Your task to perform on an android device: turn notification dots on Image 0: 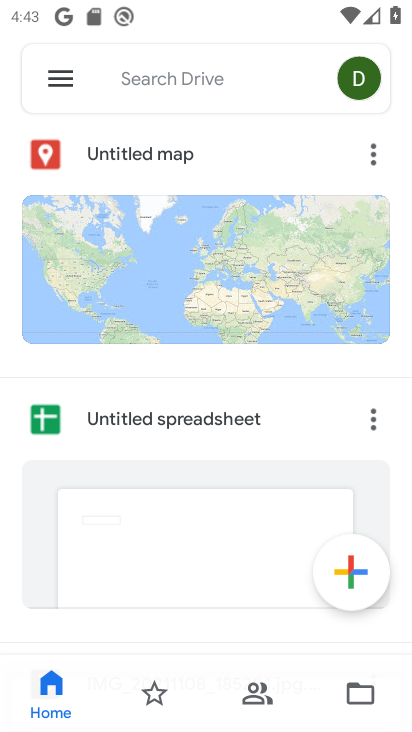
Step 0: press home button
Your task to perform on an android device: turn notification dots on Image 1: 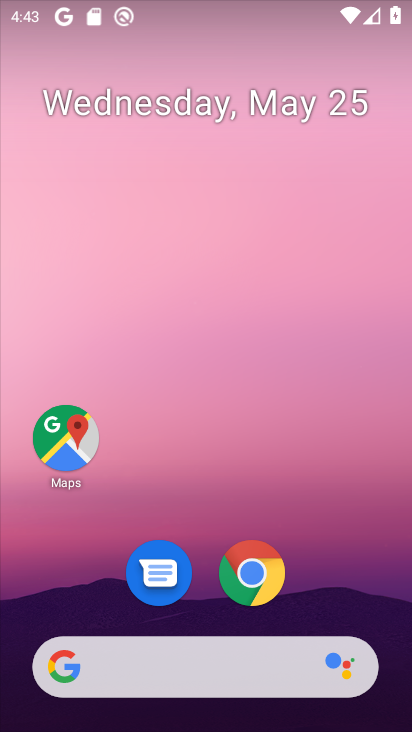
Step 1: drag from (232, 707) to (226, 265)
Your task to perform on an android device: turn notification dots on Image 2: 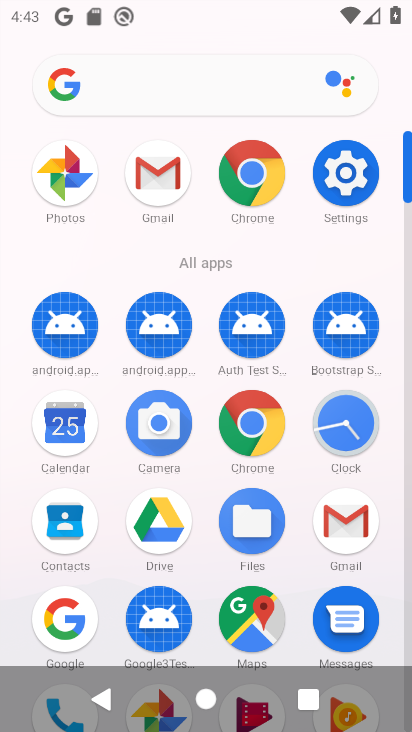
Step 2: click (344, 167)
Your task to perform on an android device: turn notification dots on Image 3: 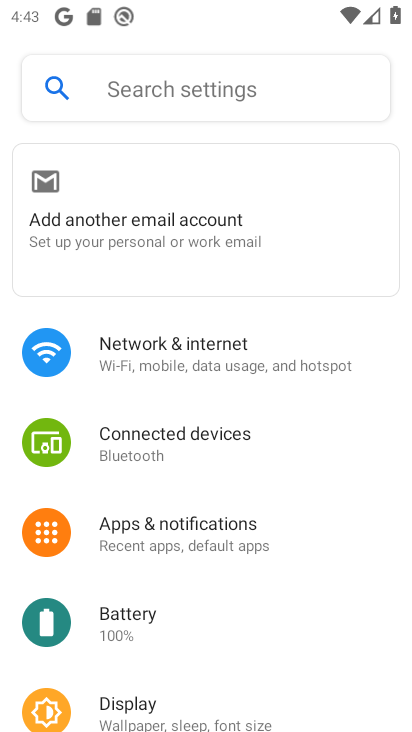
Step 3: click (182, 527)
Your task to perform on an android device: turn notification dots on Image 4: 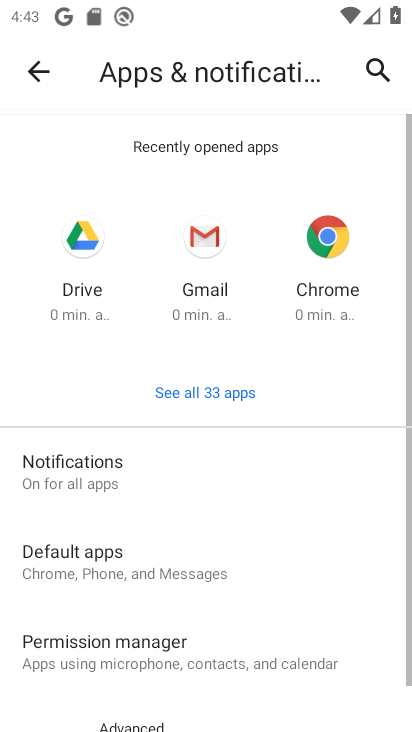
Step 4: click (73, 478)
Your task to perform on an android device: turn notification dots on Image 5: 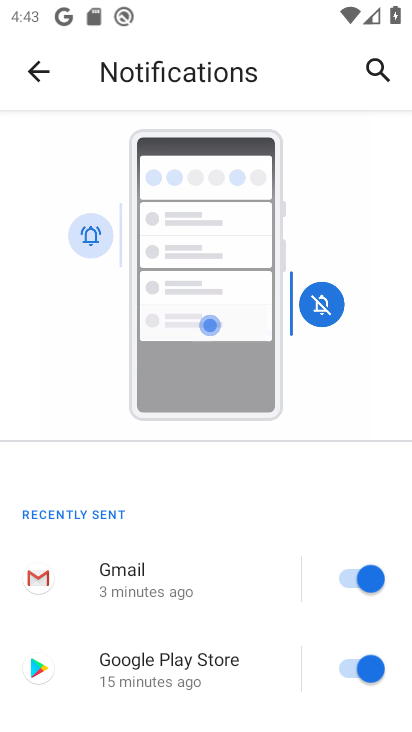
Step 5: drag from (218, 555) to (219, 357)
Your task to perform on an android device: turn notification dots on Image 6: 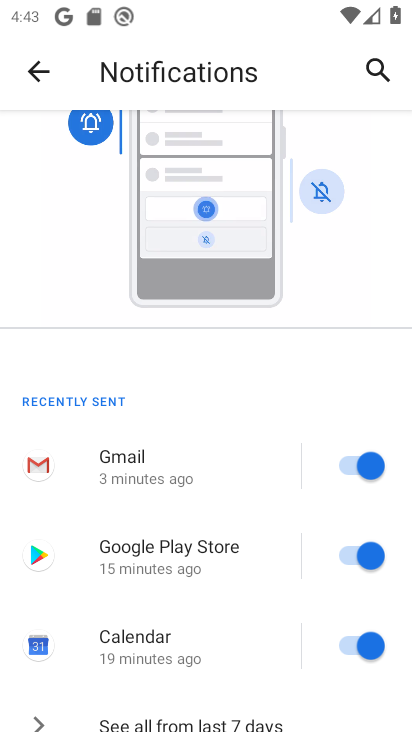
Step 6: drag from (247, 679) to (255, 381)
Your task to perform on an android device: turn notification dots on Image 7: 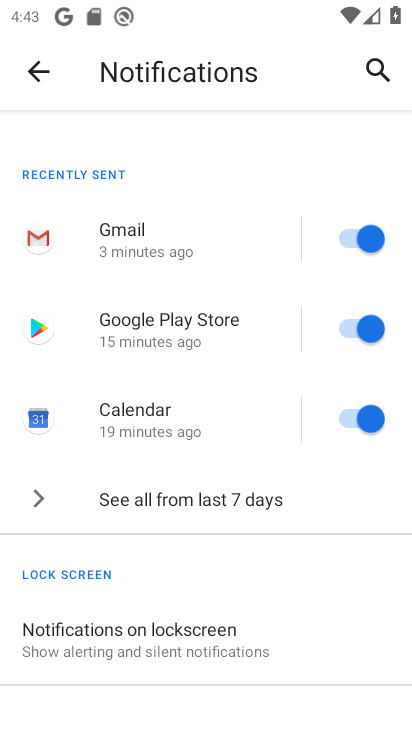
Step 7: drag from (228, 644) to (240, 326)
Your task to perform on an android device: turn notification dots on Image 8: 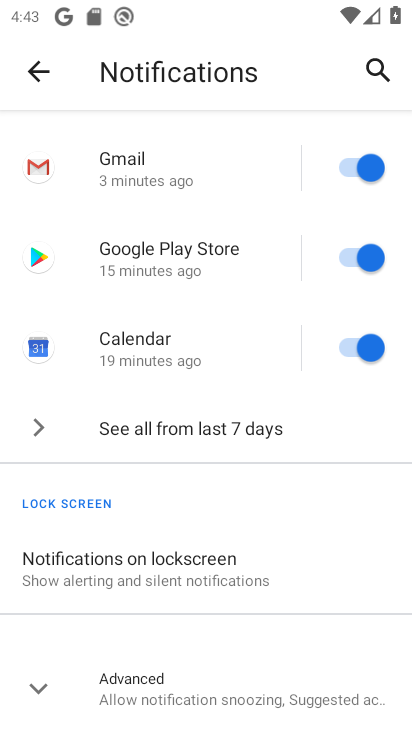
Step 8: click (162, 675)
Your task to perform on an android device: turn notification dots on Image 9: 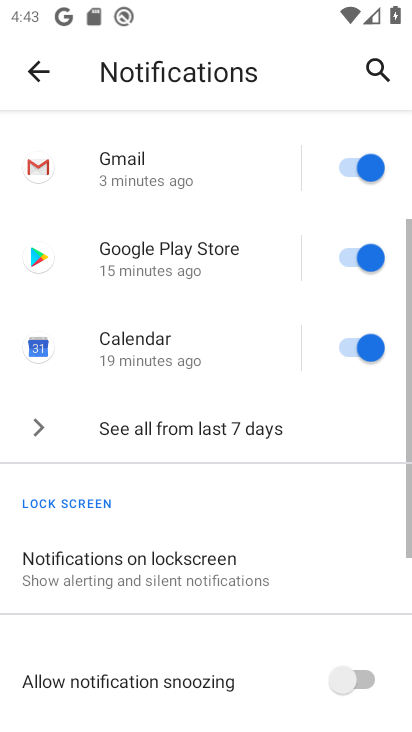
Step 9: task complete